Your task to perform on an android device: choose inbox layout in the gmail app Image 0: 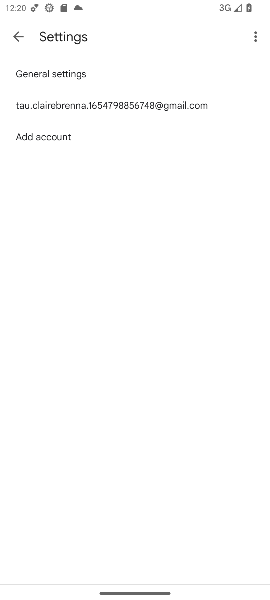
Step 0: press home button
Your task to perform on an android device: choose inbox layout in the gmail app Image 1: 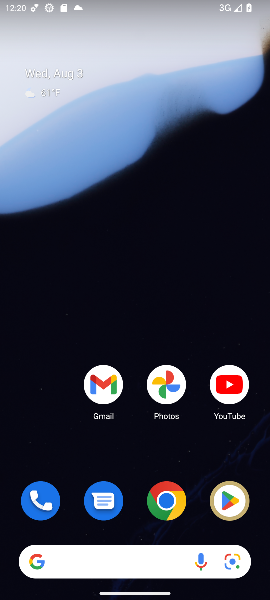
Step 1: click (101, 393)
Your task to perform on an android device: choose inbox layout in the gmail app Image 2: 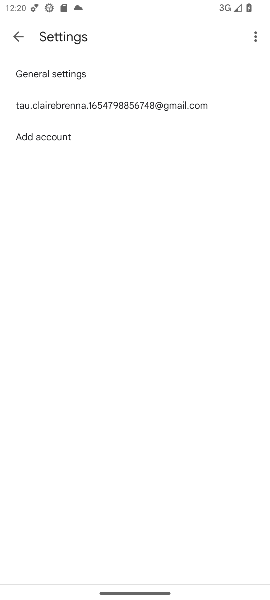
Step 2: click (18, 32)
Your task to perform on an android device: choose inbox layout in the gmail app Image 3: 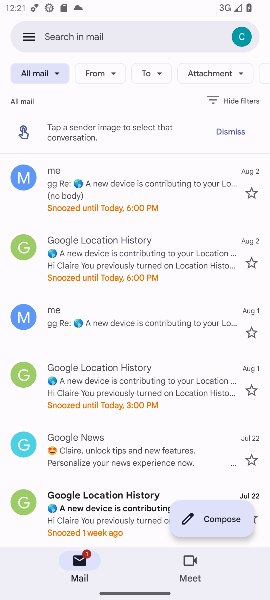
Step 3: click (29, 37)
Your task to perform on an android device: choose inbox layout in the gmail app Image 4: 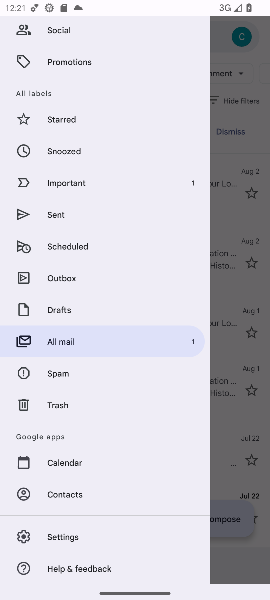
Step 4: click (69, 533)
Your task to perform on an android device: choose inbox layout in the gmail app Image 5: 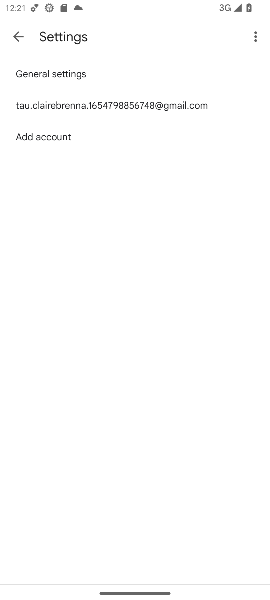
Step 5: click (82, 109)
Your task to perform on an android device: choose inbox layout in the gmail app Image 6: 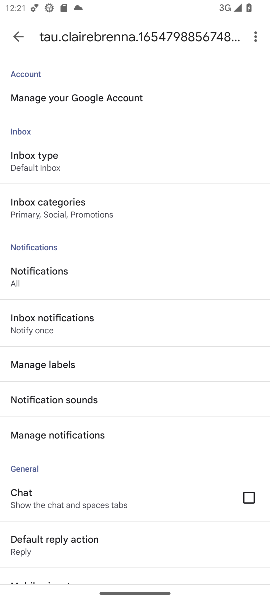
Step 6: click (86, 165)
Your task to perform on an android device: choose inbox layout in the gmail app Image 7: 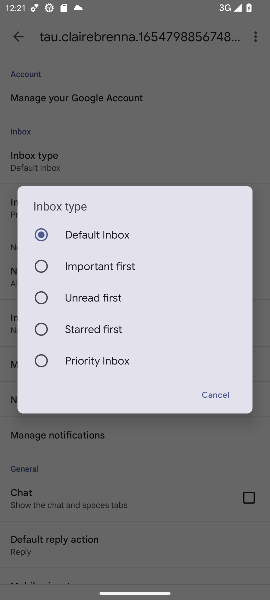
Step 7: click (51, 265)
Your task to perform on an android device: choose inbox layout in the gmail app Image 8: 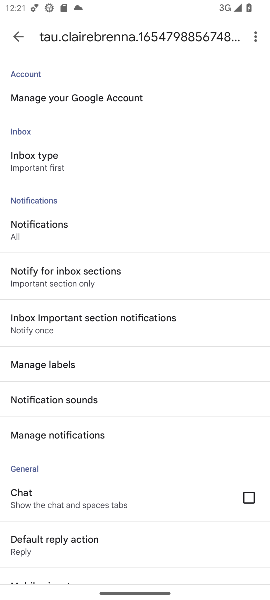
Step 8: task complete